Your task to perform on an android device: Open network settings Image 0: 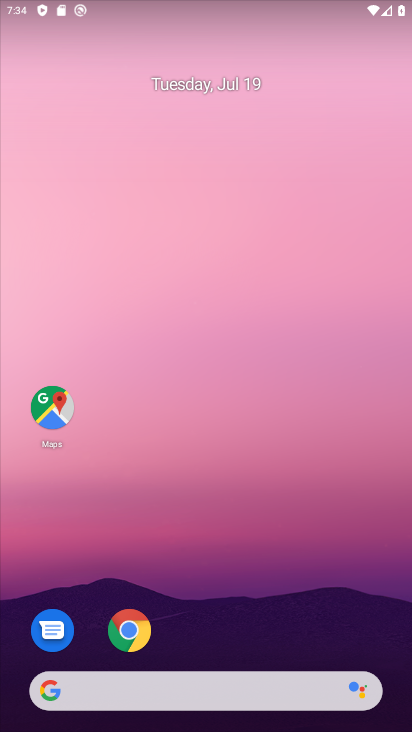
Step 0: drag from (244, 695) to (280, 230)
Your task to perform on an android device: Open network settings Image 1: 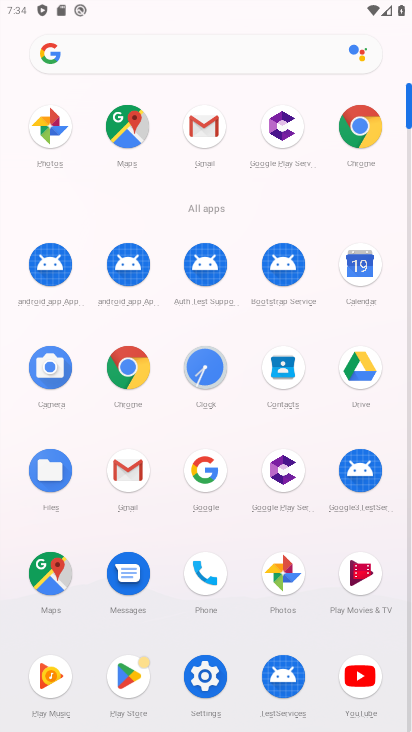
Step 1: drag from (221, 437) to (227, 296)
Your task to perform on an android device: Open network settings Image 2: 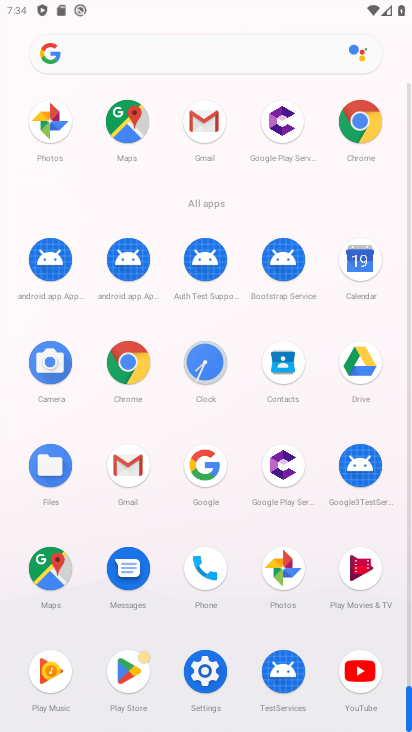
Step 2: click (207, 688)
Your task to perform on an android device: Open network settings Image 3: 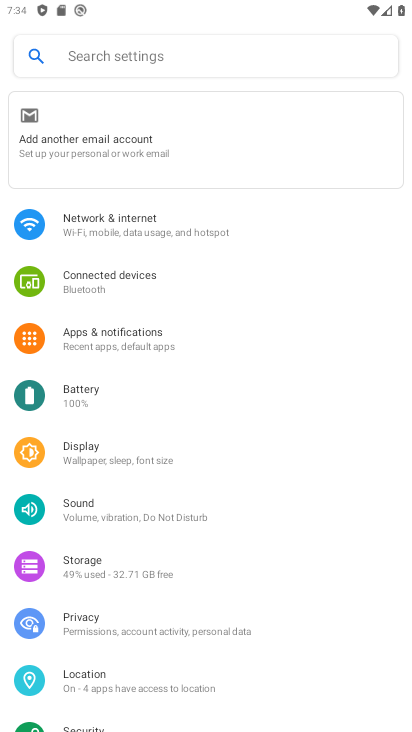
Step 3: click (222, 225)
Your task to perform on an android device: Open network settings Image 4: 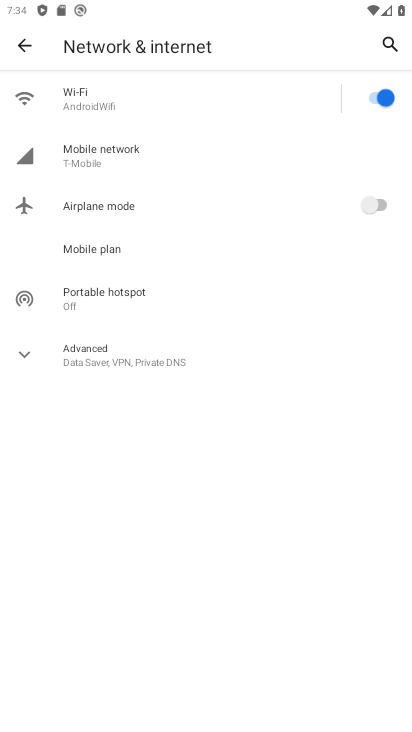
Step 4: click (110, 158)
Your task to perform on an android device: Open network settings Image 5: 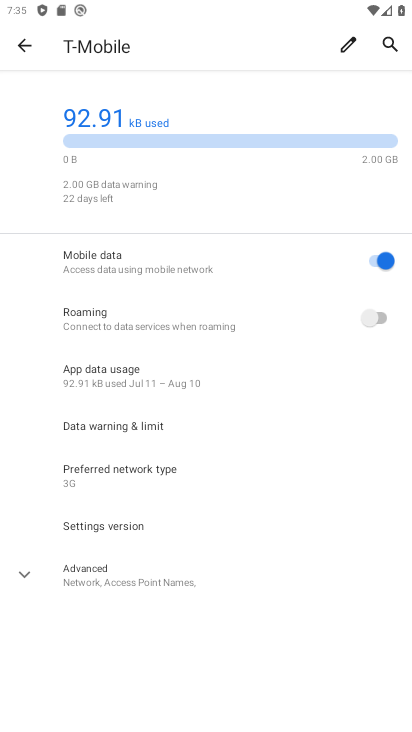
Step 5: click (117, 383)
Your task to perform on an android device: Open network settings Image 6: 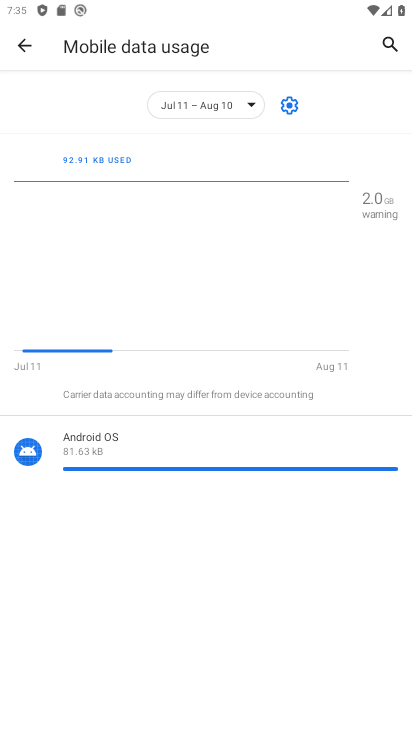
Step 6: task complete